Your task to perform on an android device: Go to Google maps Image 0: 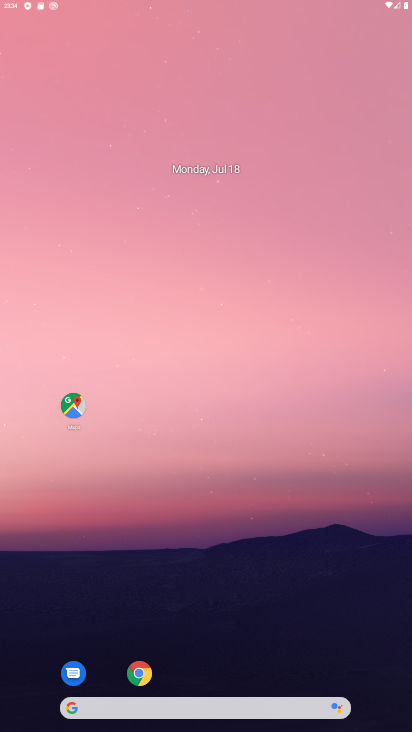
Step 0: drag from (245, 666) to (255, 162)
Your task to perform on an android device: Go to Google maps Image 1: 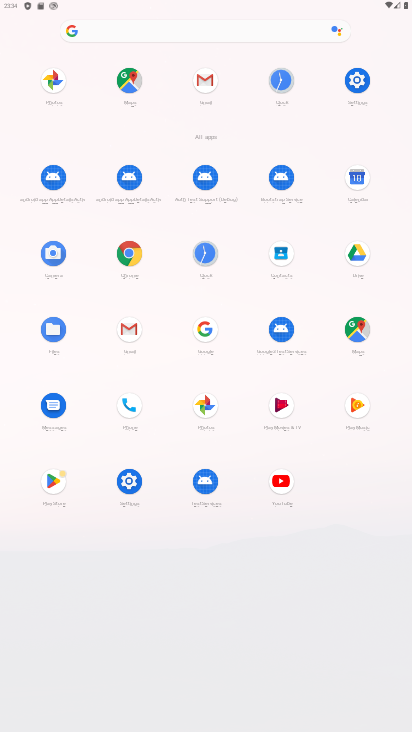
Step 1: click (133, 91)
Your task to perform on an android device: Go to Google maps Image 2: 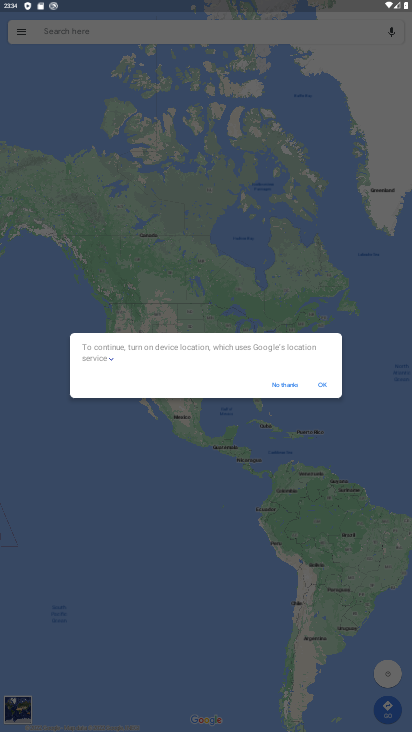
Step 2: task complete